Your task to perform on an android device: open app "Microsoft Authenticator" (install if not already installed), go to login, and select forgot password Image 0: 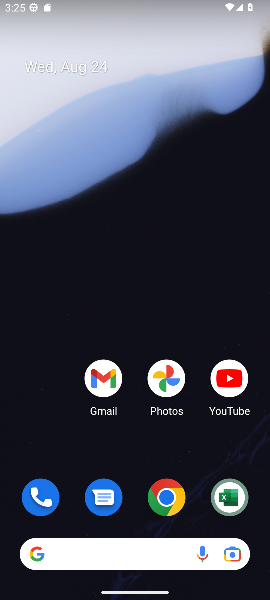
Step 0: drag from (81, 551) to (159, 136)
Your task to perform on an android device: open app "Microsoft Authenticator" (install if not already installed), go to login, and select forgot password Image 1: 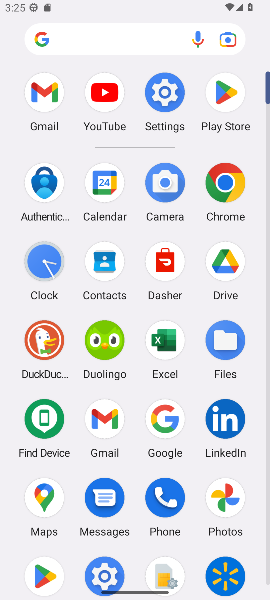
Step 1: click (222, 93)
Your task to perform on an android device: open app "Microsoft Authenticator" (install if not already installed), go to login, and select forgot password Image 2: 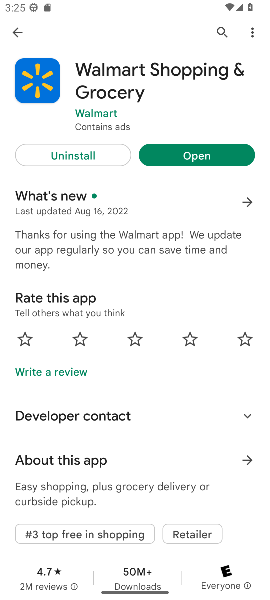
Step 2: press back button
Your task to perform on an android device: open app "Microsoft Authenticator" (install if not already installed), go to login, and select forgot password Image 3: 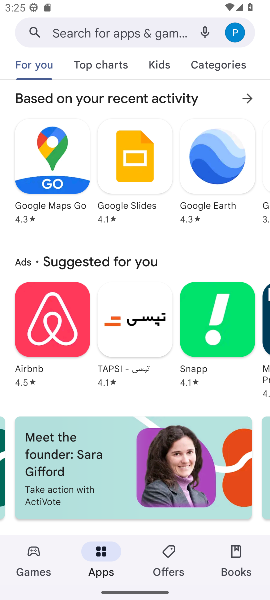
Step 3: click (75, 36)
Your task to perform on an android device: open app "Microsoft Authenticator" (install if not already installed), go to login, and select forgot password Image 4: 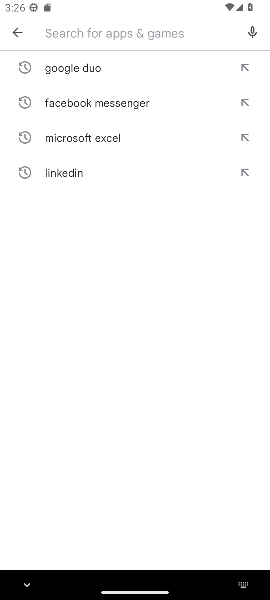
Step 4: type "Microsoft Authenticator"
Your task to perform on an android device: open app "Microsoft Authenticator" (install if not already installed), go to login, and select forgot password Image 5: 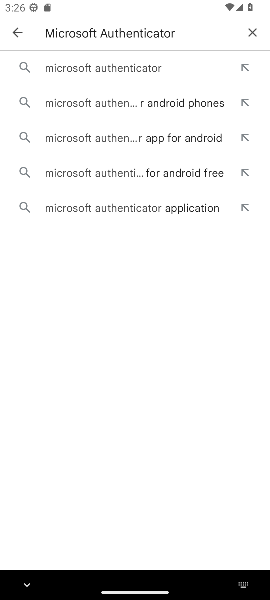
Step 5: click (145, 73)
Your task to perform on an android device: open app "Microsoft Authenticator" (install if not already installed), go to login, and select forgot password Image 6: 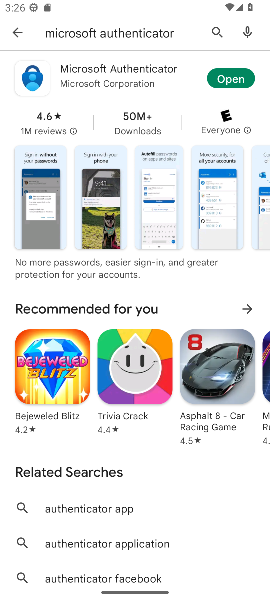
Step 6: click (225, 77)
Your task to perform on an android device: open app "Microsoft Authenticator" (install if not already installed), go to login, and select forgot password Image 7: 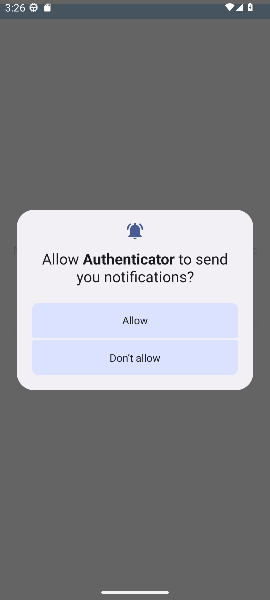
Step 7: click (137, 320)
Your task to perform on an android device: open app "Microsoft Authenticator" (install if not already installed), go to login, and select forgot password Image 8: 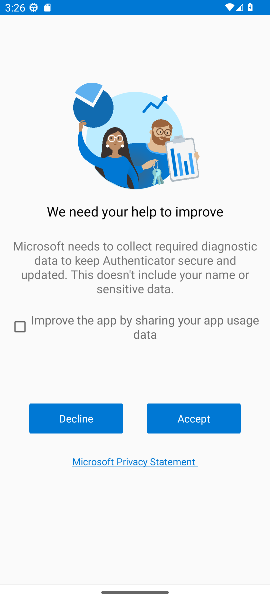
Step 8: click (180, 418)
Your task to perform on an android device: open app "Microsoft Authenticator" (install if not already installed), go to login, and select forgot password Image 9: 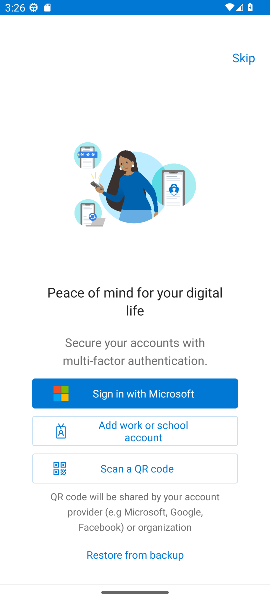
Step 9: click (174, 395)
Your task to perform on an android device: open app "Microsoft Authenticator" (install if not already installed), go to login, and select forgot password Image 10: 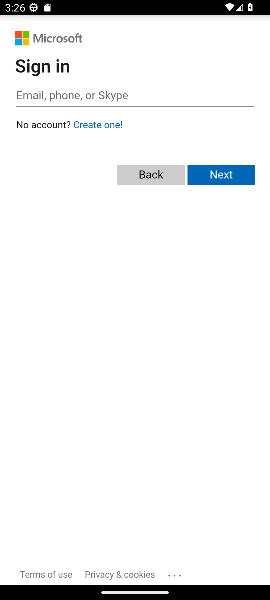
Step 10: click (175, 98)
Your task to perform on an android device: open app "Microsoft Authenticator" (install if not already installed), go to login, and select forgot password Image 11: 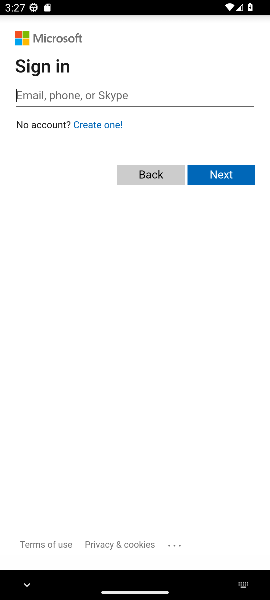
Step 11: type "Abcdd@gmail.com"
Your task to perform on an android device: open app "Microsoft Authenticator" (install if not already installed), go to login, and select forgot password Image 12: 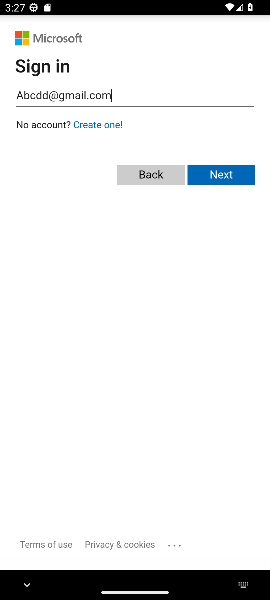
Step 12: click (224, 180)
Your task to perform on an android device: open app "Microsoft Authenticator" (install if not already installed), go to login, and select forgot password Image 13: 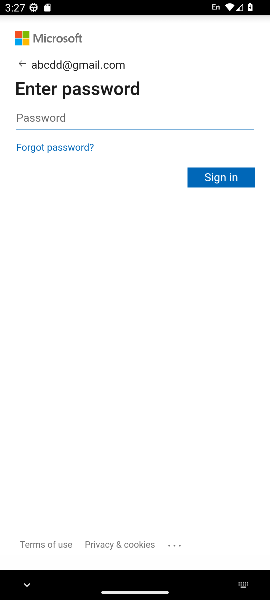
Step 13: click (71, 150)
Your task to perform on an android device: open app "Microsoft Authenticator" (install if not already installed), go to login, and select forgot password Image 14: 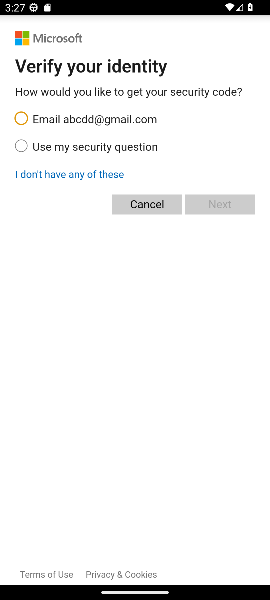
Step 14: task complete